Your task to perform on an android device: Do I have any events tomorrow? Image 0: 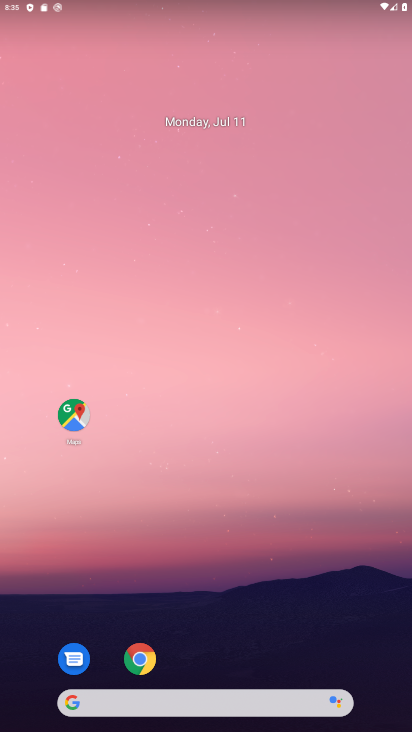
Step 0: drag from (24, 720) to (277, 138)
Your task to perform on an android device: Do I have any events tomorrow? Image 1: 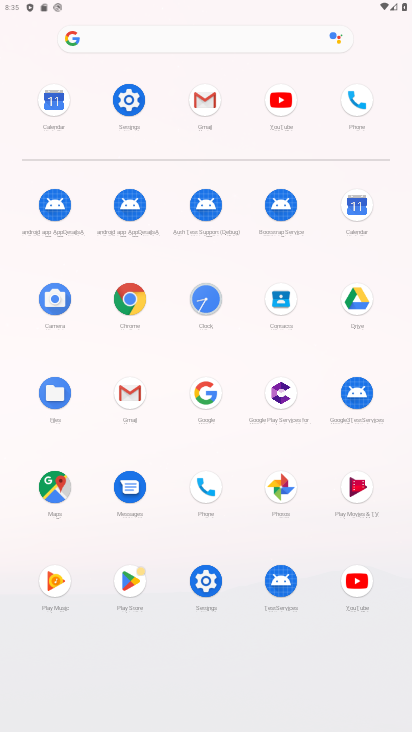
Step 1: click (351, 206)
Your task to perform on an android device: Do I have any events tomorrow? Image 2: 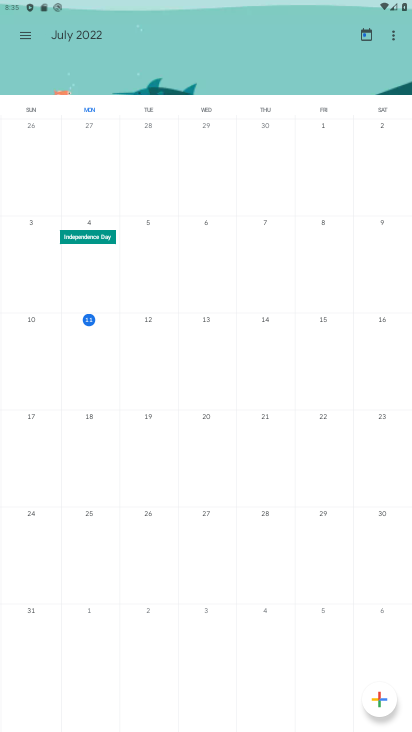
Step 2: click (28, 34)
Your task to perform on an android device: Do I have any events tomorrow? Image 3: 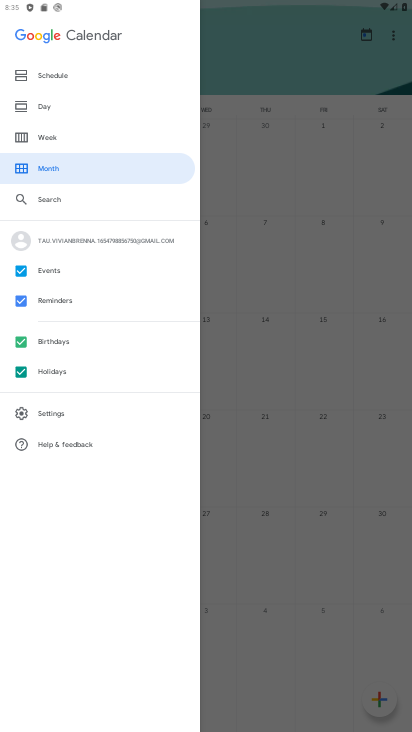
Step 3: click (239, 40)
Your task to perform on an android device: Do I have any events tomorrow? Image 4: 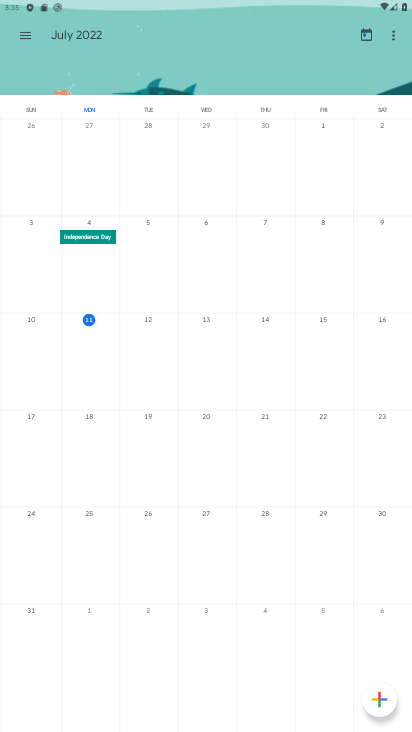
Step 4: task complete